Your task to perform on an android device: see tabs open on other devices in the chrome app Image 0: 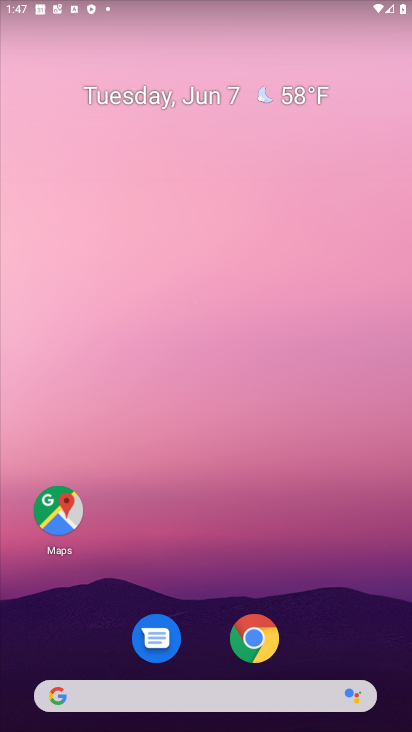
Step 0: drag from (215, 648) to (233, 300)
Your task to perform on an android device: see tabs open on other devices in the chrome app Image 1: 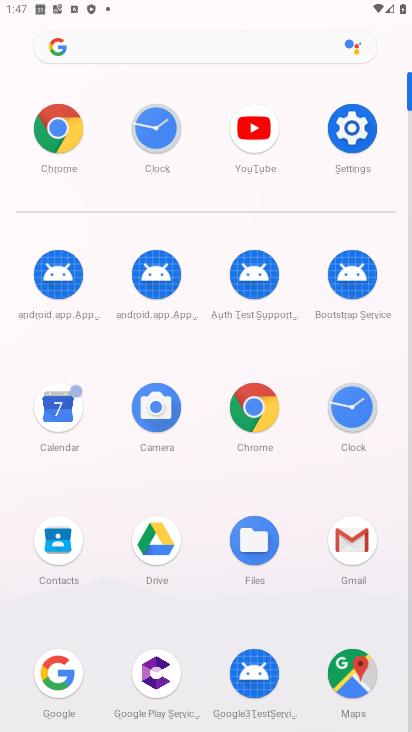
Step 1: click (53, 136)
Your task to perform on an android device: see tabs open on other devices in the chrome app Image 2: 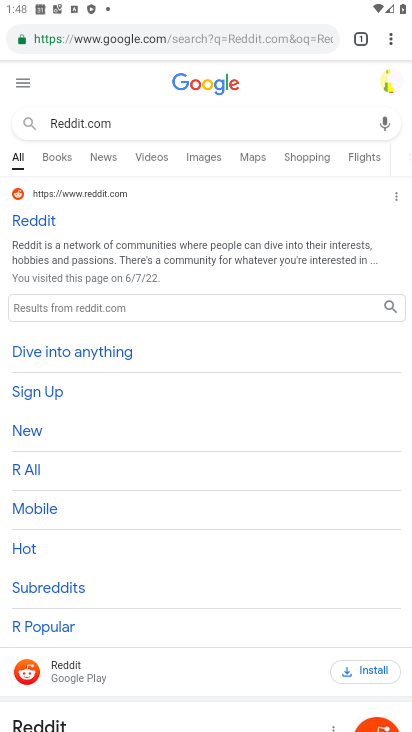
Step 2: click (391, 49)
Your task to perform on an android device: see tabs open on other devices in the chrome app Image 3: 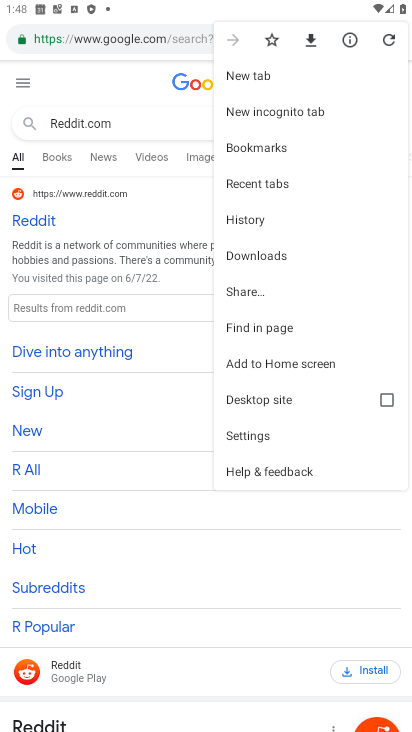
Step 3: click (261, 187)
Your task to perform on an android device: see tabs open on other devices in the chrome app Image 4: 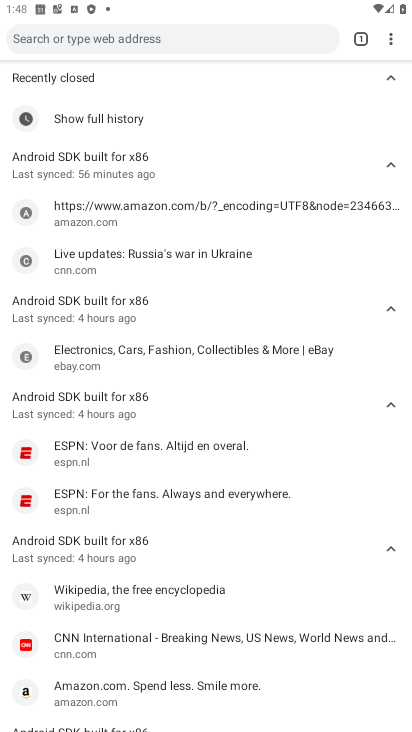
Step 4: task complete